Your task to perform on an android device: turn off location Image 0: 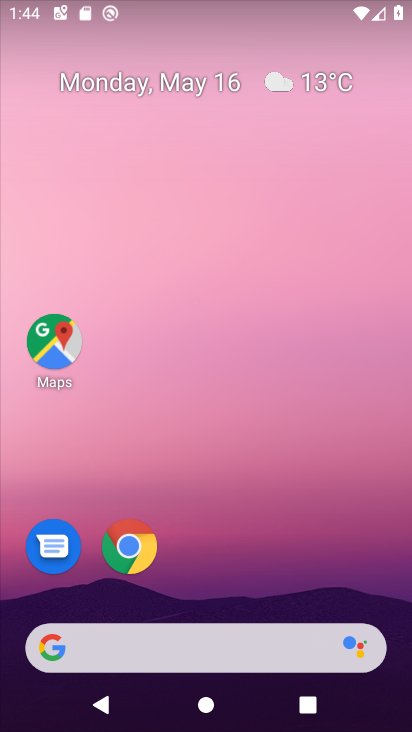
Step 0: drag from (236, 720) to (232, 117)
Your task to perform on an android device: turn off location Image 1: 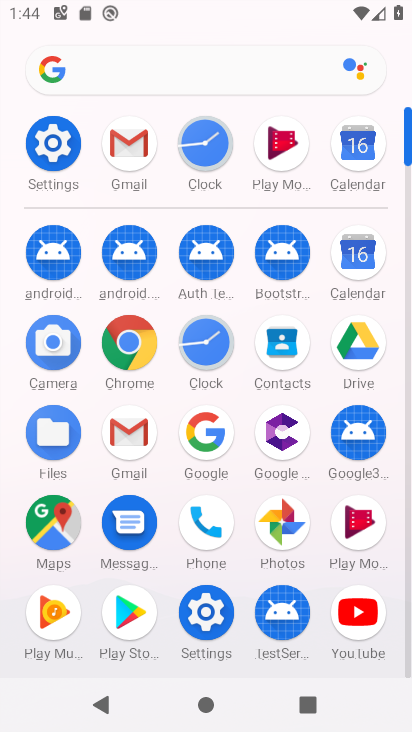
Step 1: click (51, 139)
Your task to perform on an android device: turn off location Image 2: 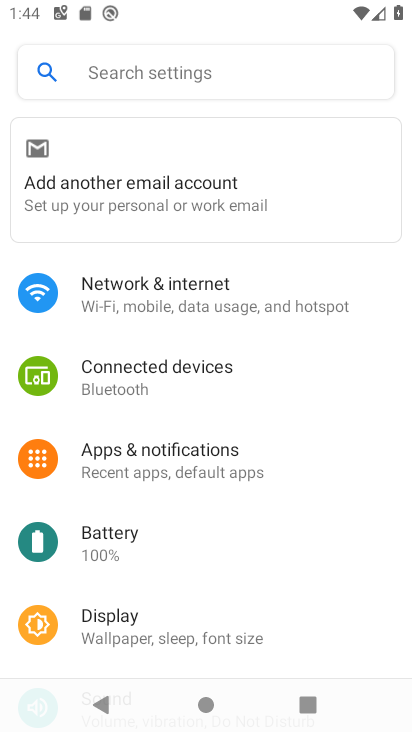
Step 2: drag from (181, 552) to (154, 217)
Your task to perform on an android device: turn off location Image 3: 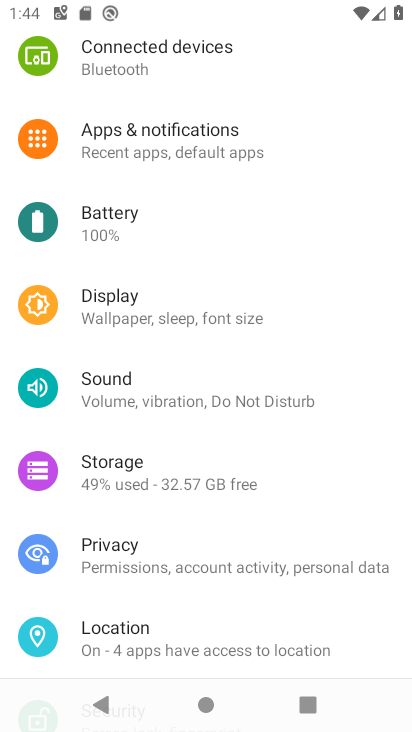
Step 3: drag from (135, 578) to (139, 273)
Your task to perform on an android device: turn off location Image 4: 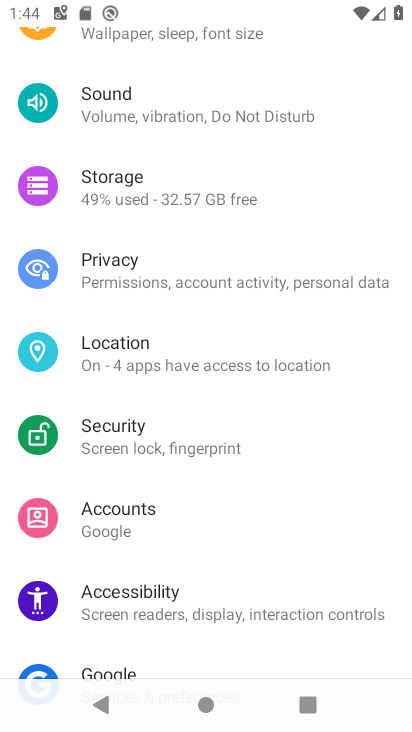
Step 4: click (142, 346)
Your task to perform on an android device: turn off location Image 5: 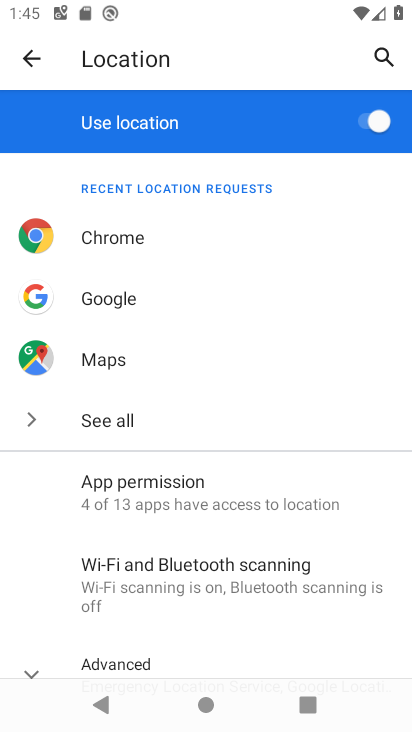
Step 5: click (372, 116)
Your task to perform on an android device: turn off location Image 6: 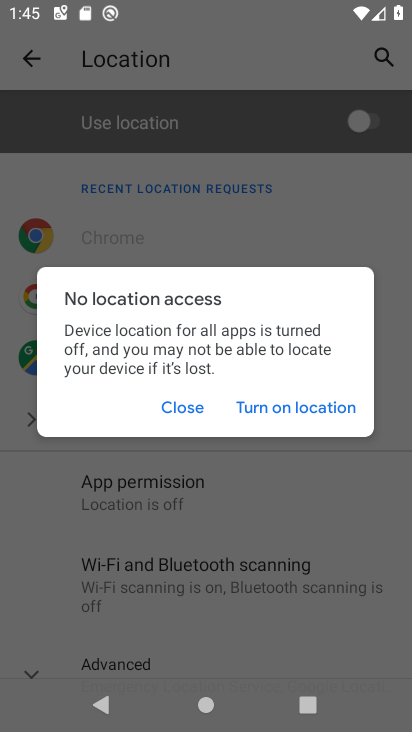
Step 6: click (180, 406)
Your task to perform on an android device: turn off location Image 7: 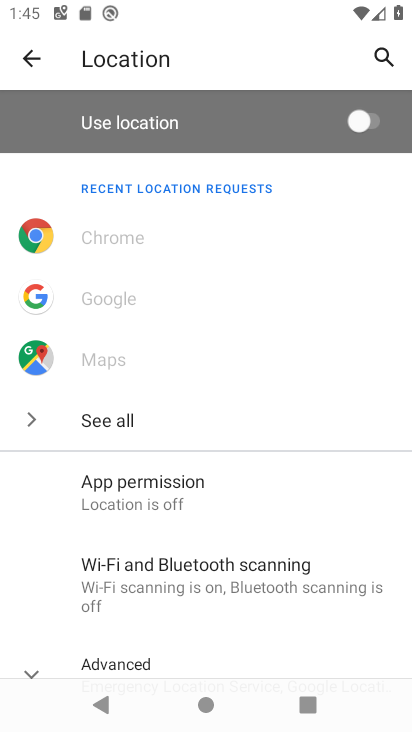
Step 7: task complete